Your task to perform on an android device: change your default location settings in chrome Image 0: 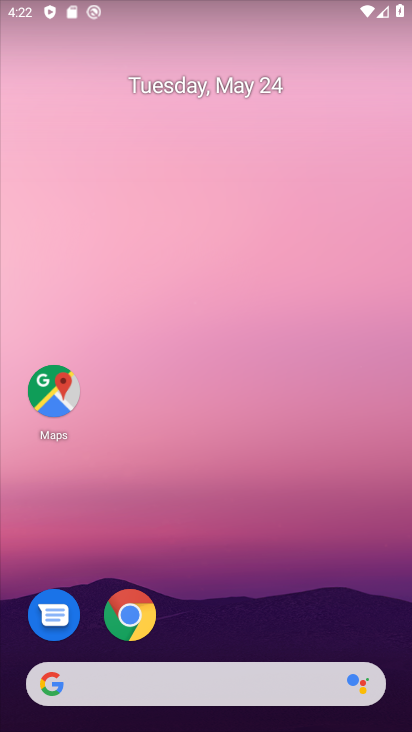
Step 0: click (140, 620)
Your task to perform on an android device: change your default location settings in chrome Image 1: 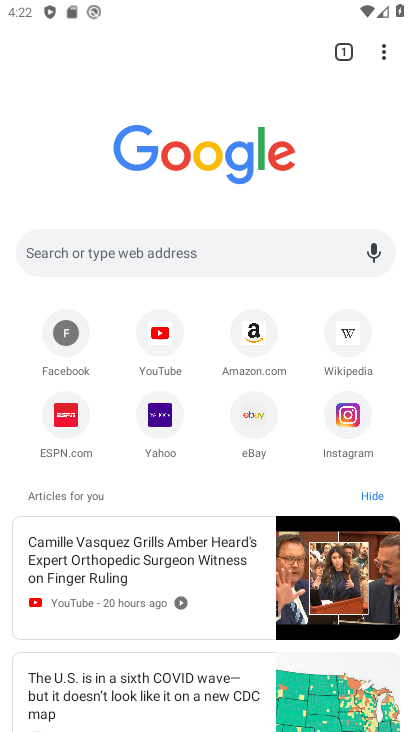
Step 1: click (385, 63)
Your task to perform on an android device: change your default location settings in chrome Image 2: 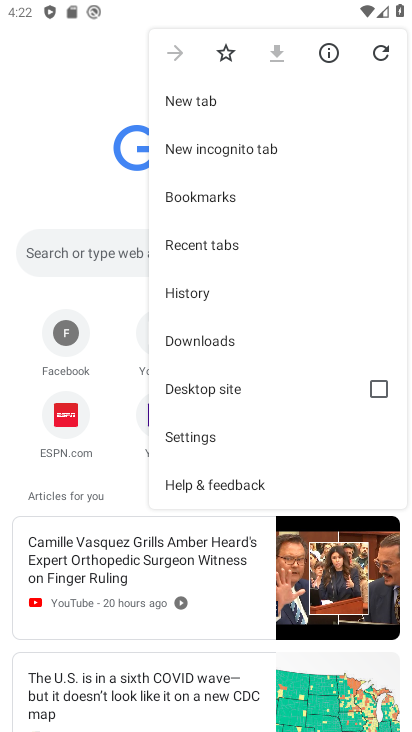
Step 2: click (244, 445)
Your task to perform on an android device: change your default location settings in chrome Image 3: 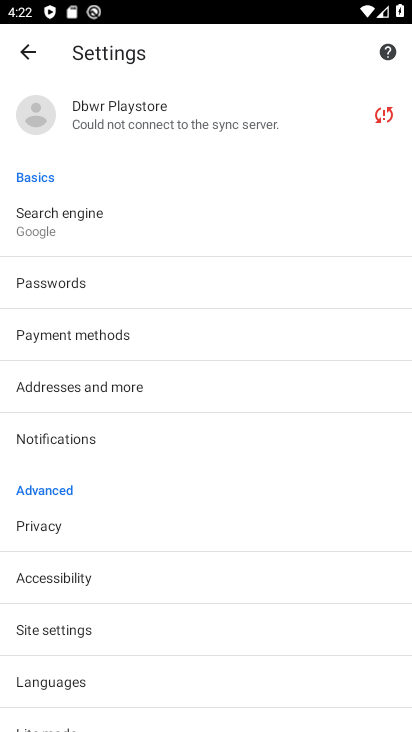
Step 3: click (169, 631)
Your task to perform on an android device: change your default location settings in chrome Image 4: 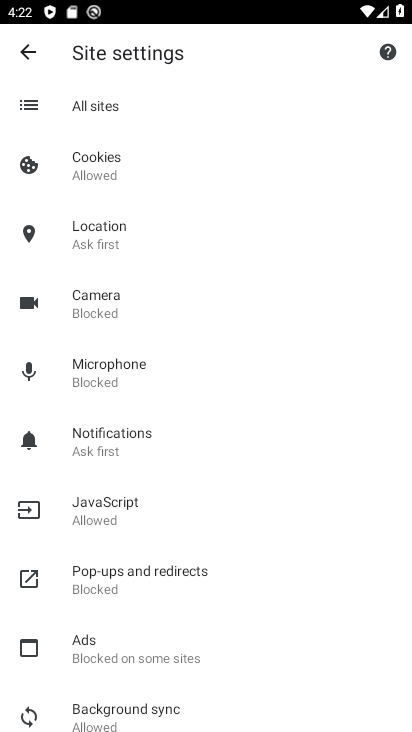
Step 4: click (188, 241)
Your task to perform on an android device: change your default location settings in chrome Image 5: 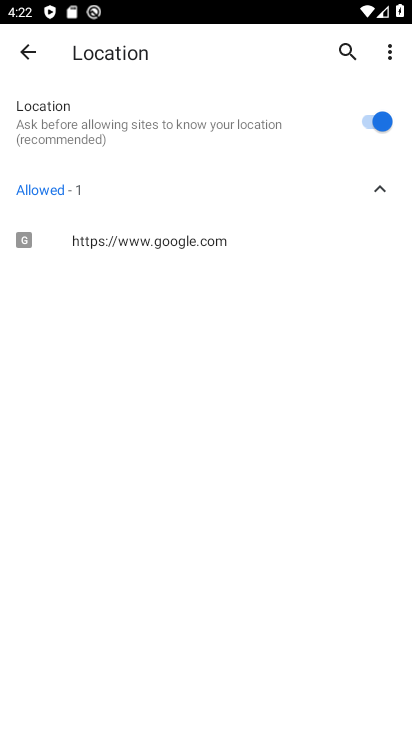
Step 5: task complete